Your task to perform on an android device: Go to Wikipedia Image 0: 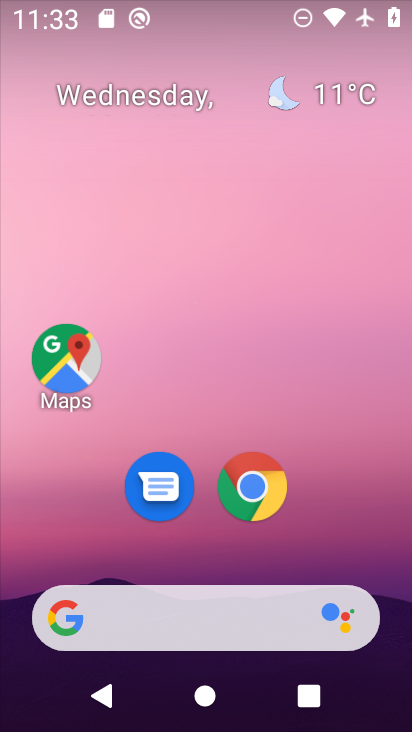
Step 0: drag from (347, 510) to (196, 70)
Your task to perform on an android device: Go to Wikipedia Image 1: 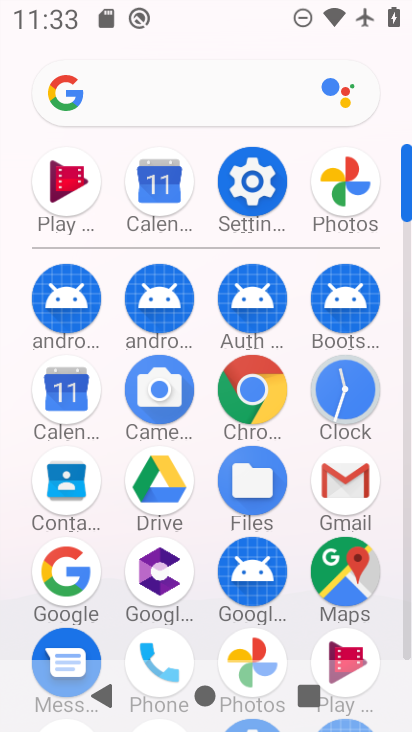
Step 1: drag from (15, 563) to (15, 331)
Your task to perform on an android device: Go to Wikipedia Image 2: 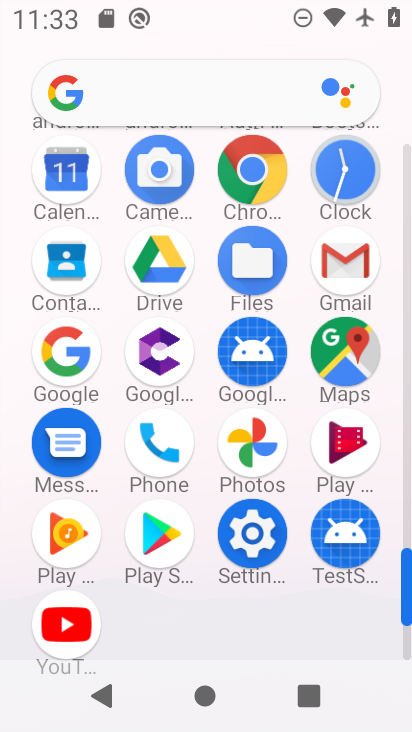
Step 2: click (250, 531)
Your task to perform on an android device: Go to Wikipedia Image 3: 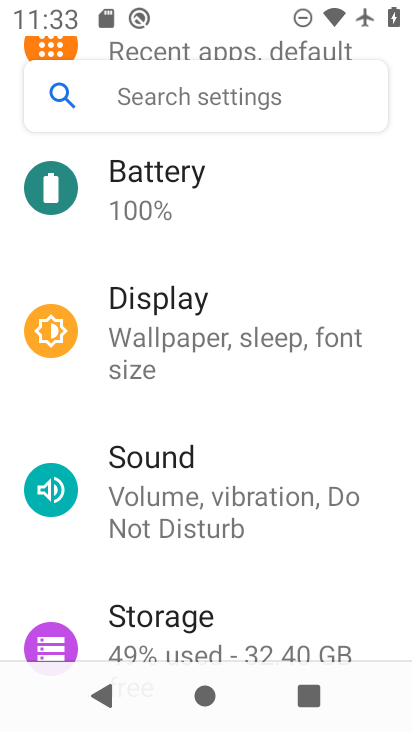
Step 3: drag from (237, 612) to (233, 466)
Your task to perform on an android device: Go to Wikipedia Image 4: 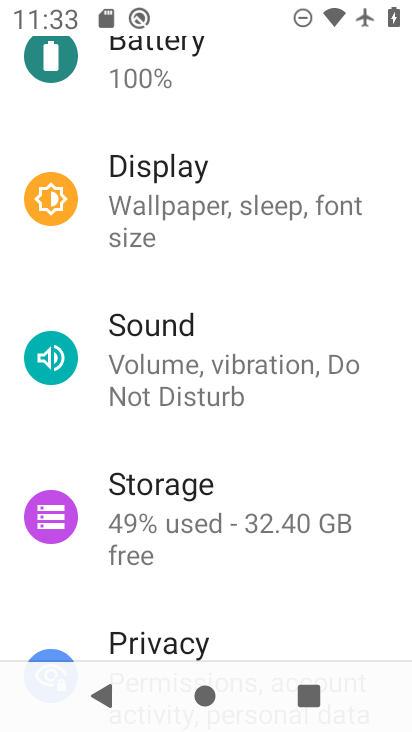
Step 4: press back button
Your task to perform on an android device: Go to Wikipedia Image 5: 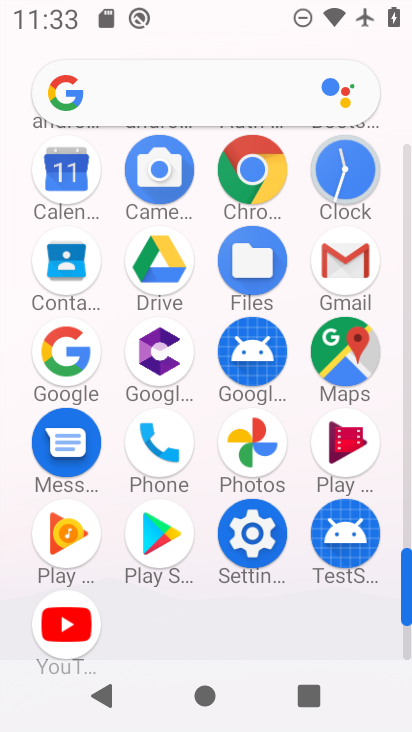
Step 5: click (247, 166)
Your task to perform on an android device: Go to Wikipedia Image 6: 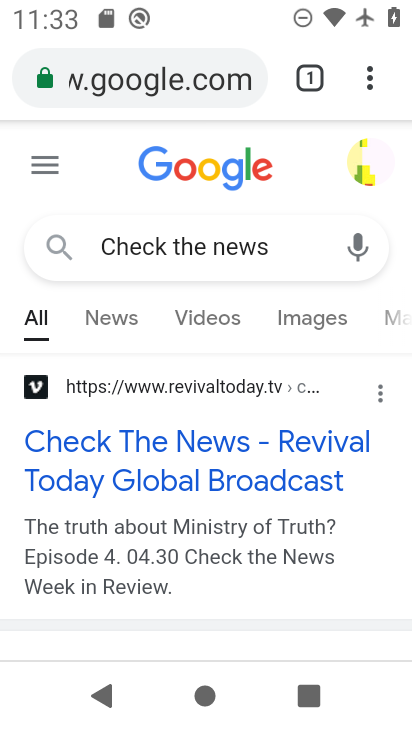
Step 6: click (164, 79)
Your task to perform on an android device: Go to Wikipedia Image 7: 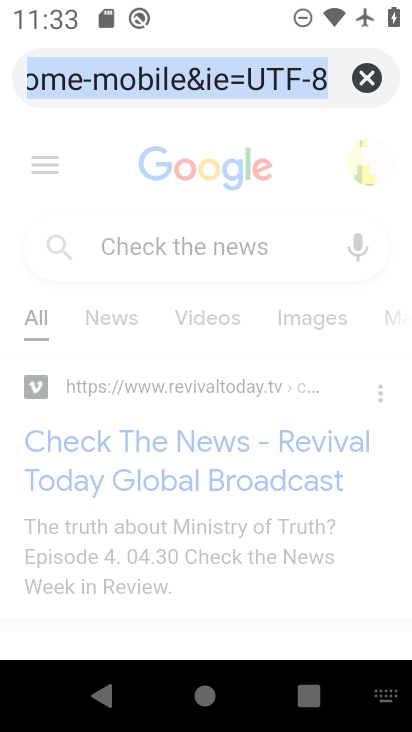
Step 7: click (363, 78)
Your task to perform on an android device: Go to Wikipedia Image 8: 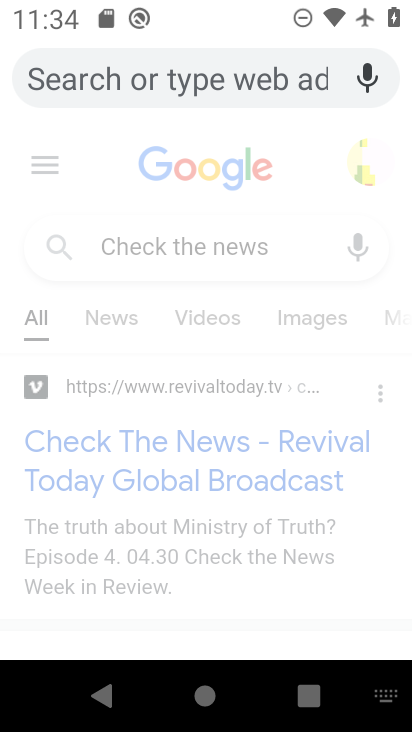
Step 8: type "Wikipedia"
Your task to perform on an android device: Go to Wikipedia Image 9: 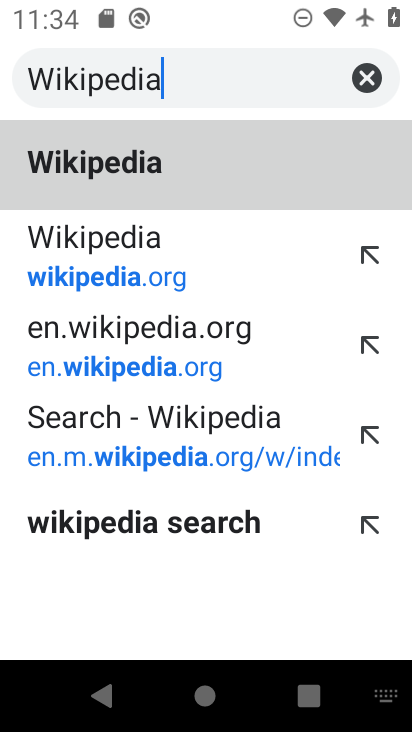
Step 9: click (173, 253)
Your task to perform on an android device: Go to Wikipedia Image 10: 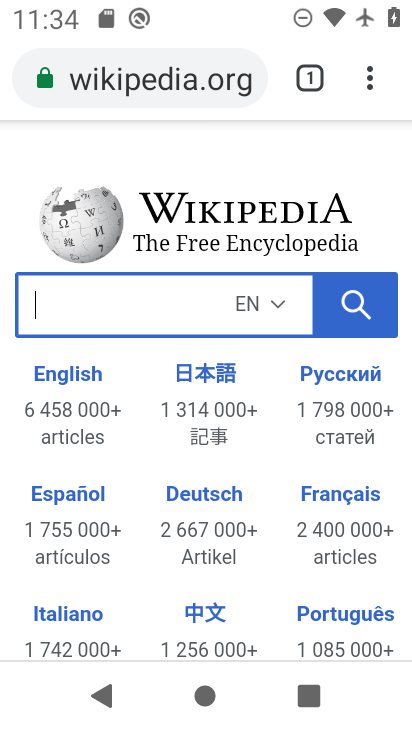
Step 10: task complete